Your task to perform on an android device: Go to notification settings Image 0: 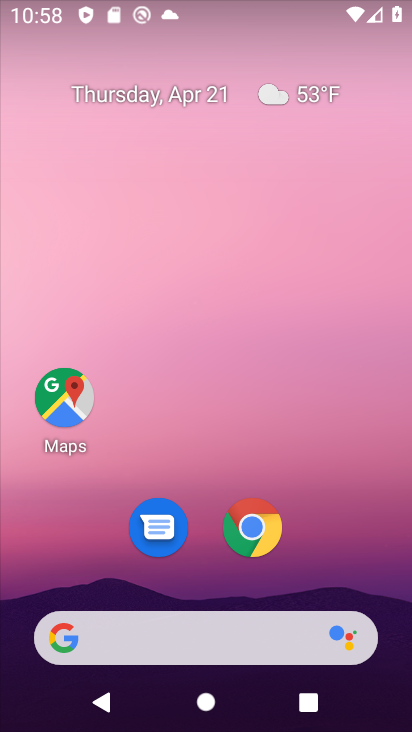
Step 0: drag from (352, 565) to (353, 179)
Your task to perform on an android device: Go to notification settings Image 1: 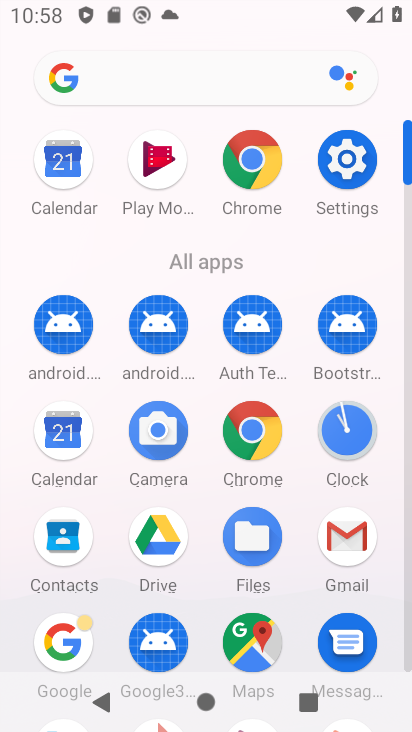
Step 1: click (351, 164)
Your task to perform on an android device: Go to notification settings Image 2: 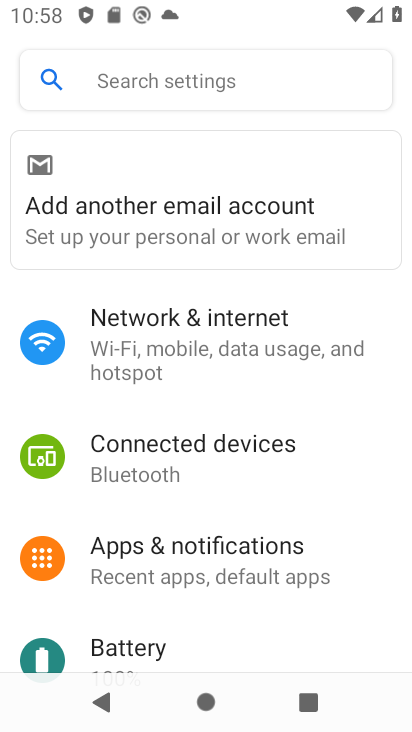
Step 2: drag from (349, 593) to (350, 394)
Your task to perform on an android device: Go to notification settings Image 3: 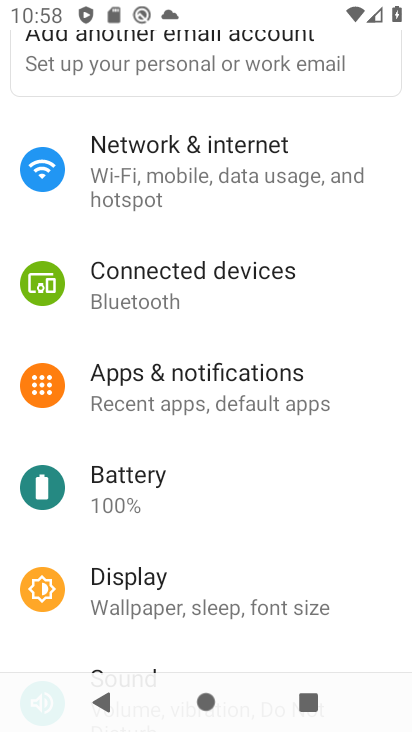
Step 3: click (250, 370)
Your task to perform on an android device: Go to notification settings Image 4: 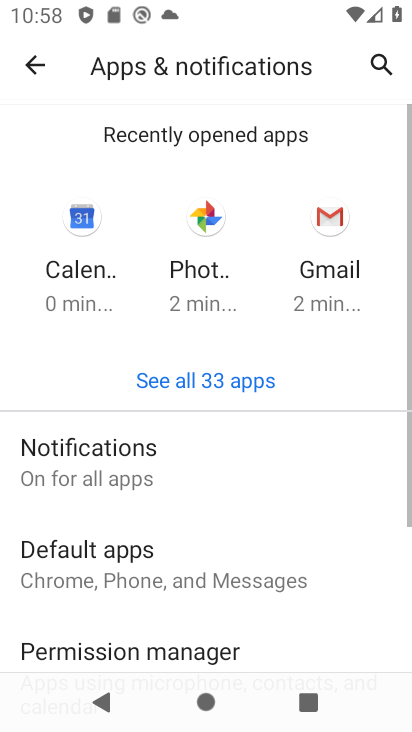
Step 4: click (98, 468)
Your task to perform on an android device: Go to notification settings Image 5: 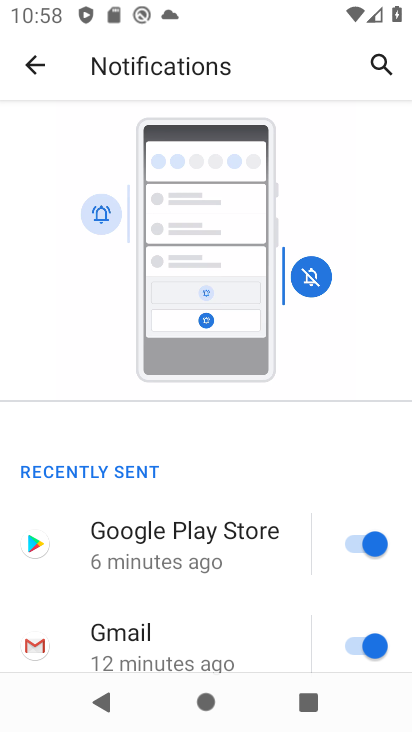
Step 5: task complete